Your task to perform on an android device: toggle javascript in the chrome app Image 0: 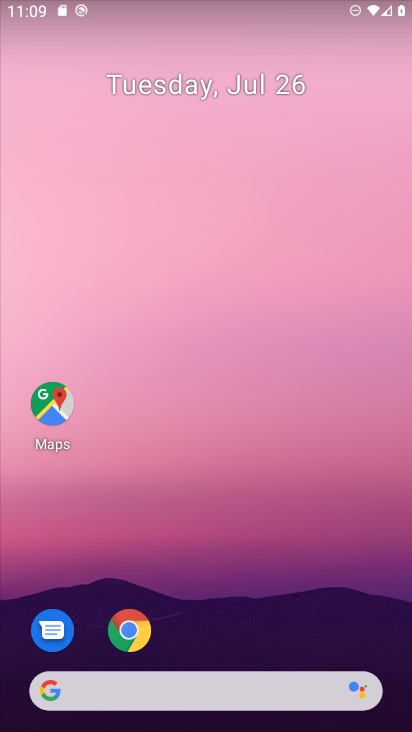
Step 0: click (130, 632)
Your task to perform on an android device: toggle javascript in the chrome app Image 1: 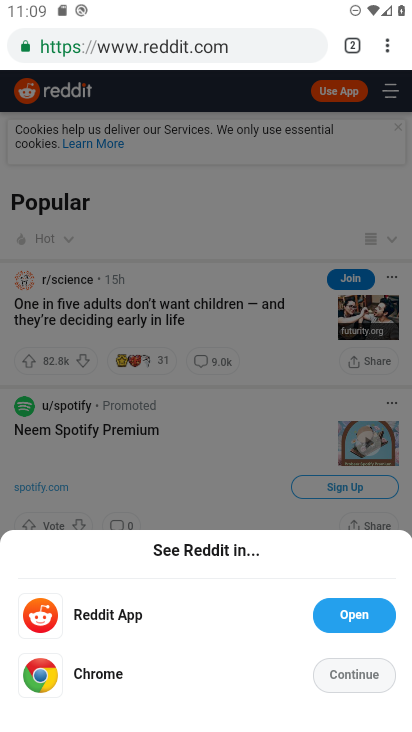
Step 1: click (387, 50)
Your task to perform on an android device: toggle javascript in the chrome app Image 2: 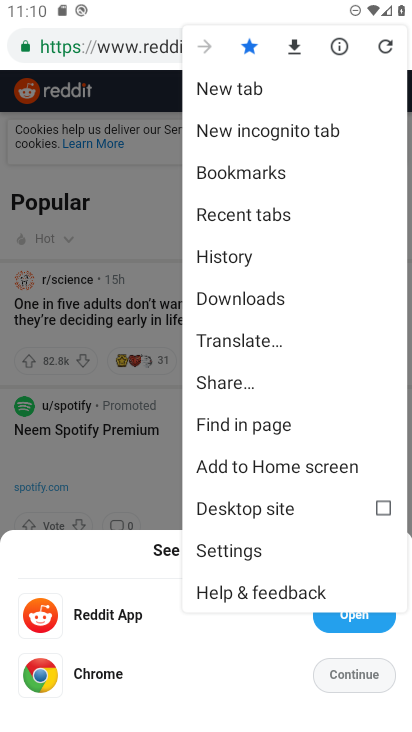
Step 2: click (234, 556)
Your task to perform on an android device: toggle javascript in the chrome app Image 3: 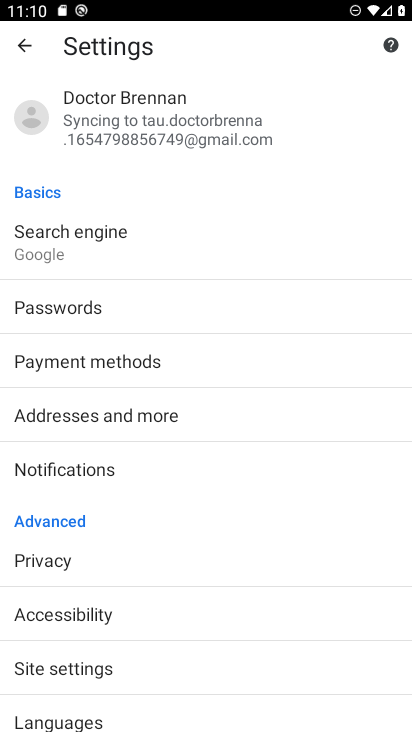
Step 3: drag from (198, 640) to (210, 412)
Your task to perform on an android device: toggle javascript in the chrome app Image 4: 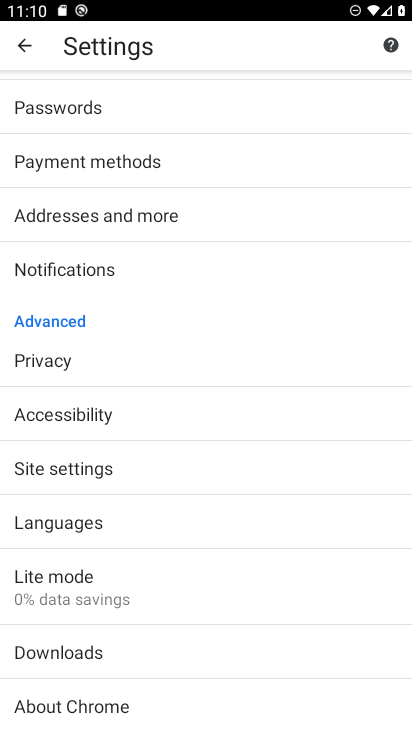
Step 4: click (51, 462)
Your task to perform on an android device: toggle javascript in the chrome app Image 5: 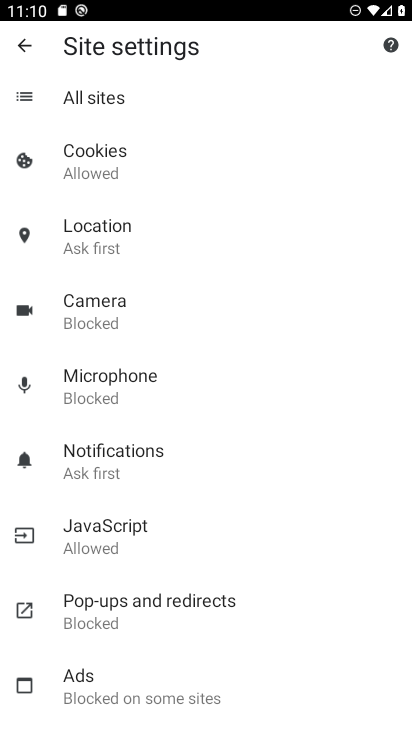
Step 5: click (82, 539)
Your task to perform on an android device: toggle javascript in the chrome app Image 6: 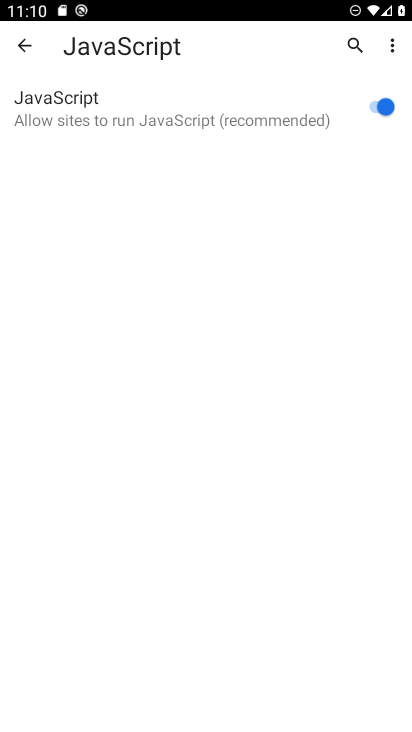
Step 6: click (376, 106)
Your task to perform on an android device: toggle javascript in the chrome app Image 7: 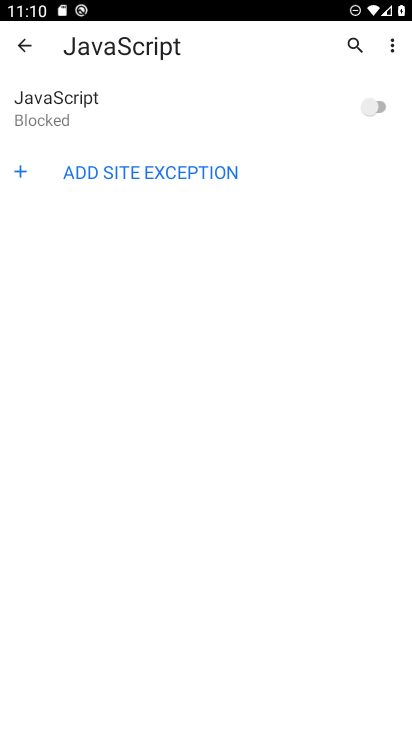
Step 7: task complete